Your task to perform on an android device: Open Google Chrome and open the bookmarks view Image 0: 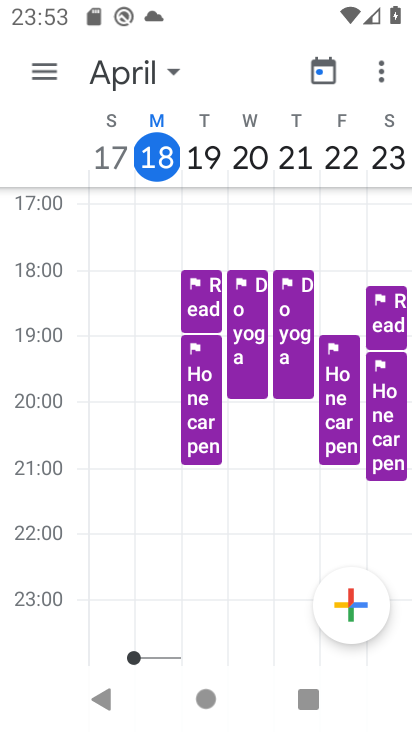
Step 0: press home button
Your task to perform on an android device: Open Google Chrome and open the bookmarks view Image 1: 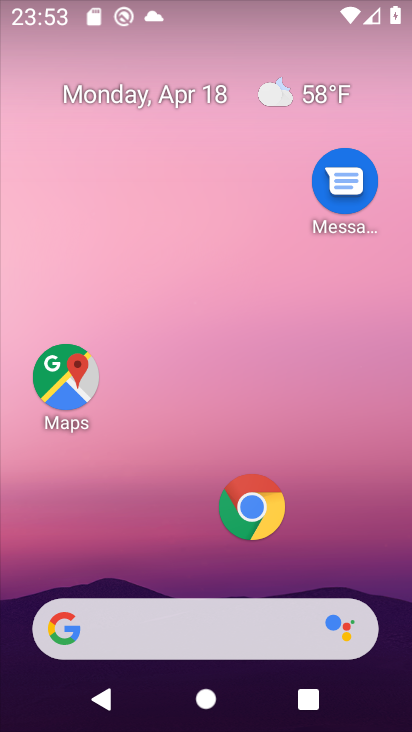
Step 1: click (252, 492)
Your task to perform on an android device: Open Google Chrome and open the bookmarks view Image 2: 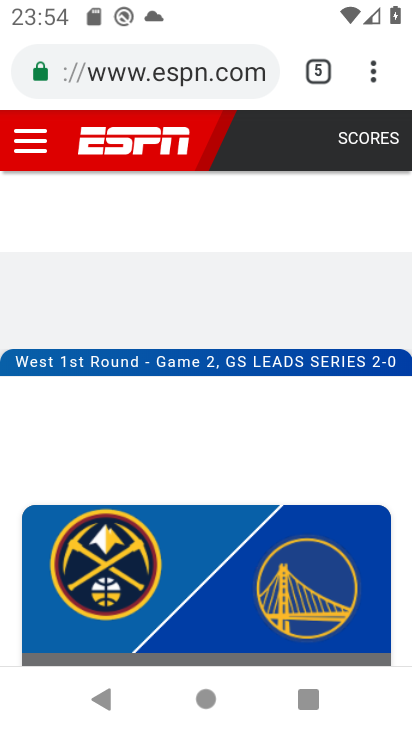
Step 2: click (366, 70)
Your task to perform on an android device: Open Google Chrome and open the bookmarks view Image 3: 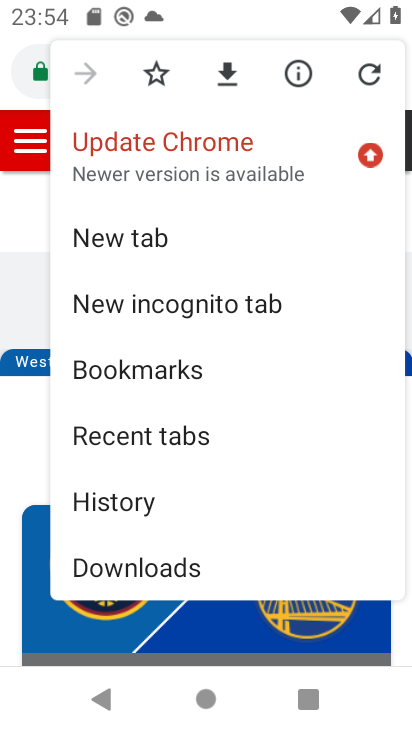
Step 3: drag from (133, 500) to (176, 226)
Your task to perform on an android device: Open Google Chrome and open the bookmarks view Image 4: 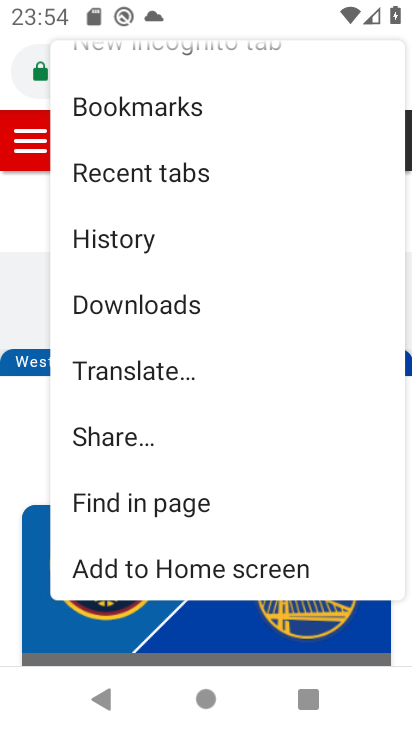
Step 4: click (160, 114)
Your task to perform on an android device: Open Google Chrome and open the bookmarks view Image 5: 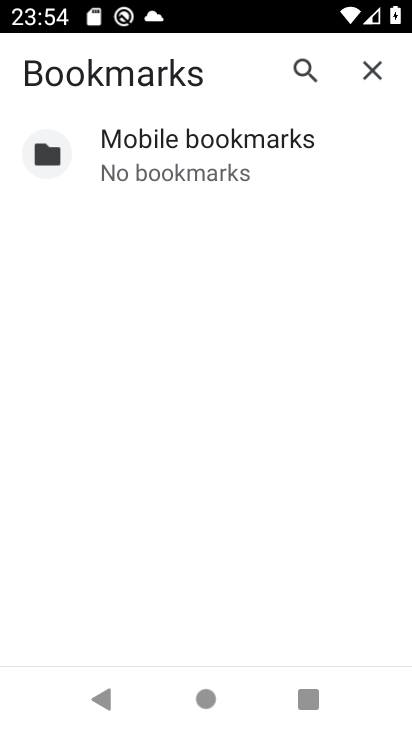
Step 5: task complete